Your task to perform on an android device: open a new tab in the chrome app Image 0: 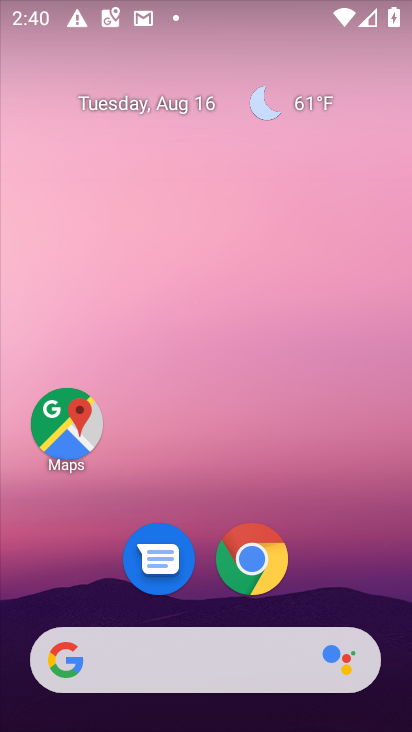
Step 0: click (250, 561)
Your task to perform on an android device: open a new tab in the chrome app Image 1: 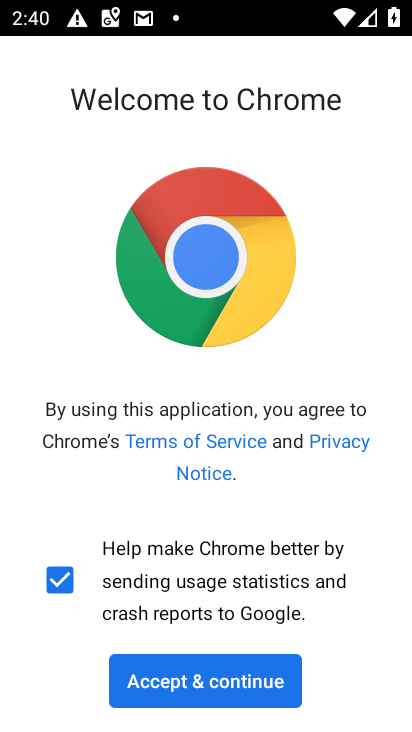
Step 1: click (196, 679)
Your task to perform on an android device: open a new tab in the chrome app Image 2: 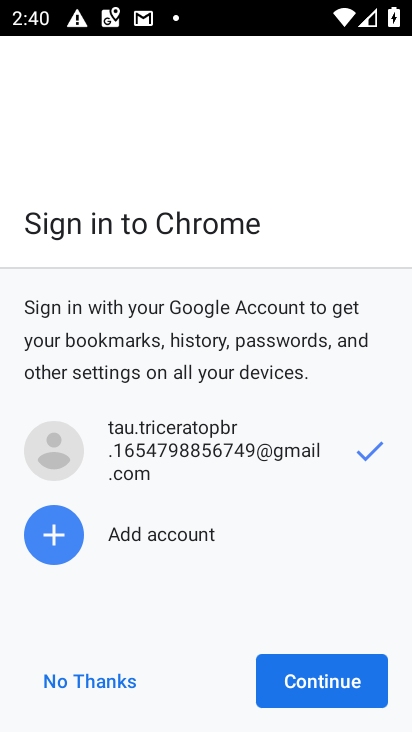
Step 2: click (326, 682)
Your task to perform on an android device: open a new tab in the chrome app Image 3: 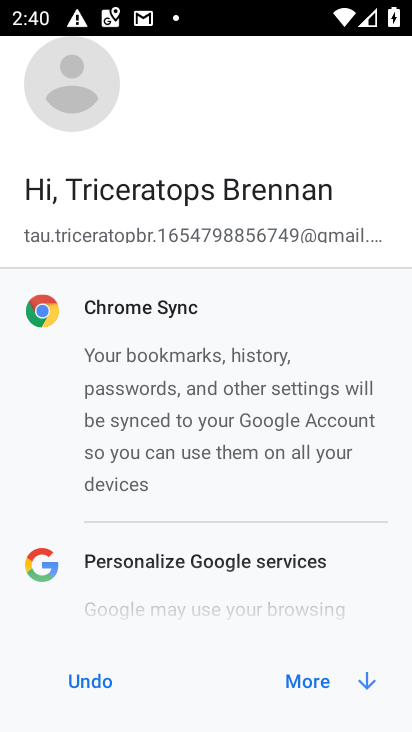
Step 3: click (326, 682)
Your task to perform on an android device: open a new tab in the chrome app Image 4: 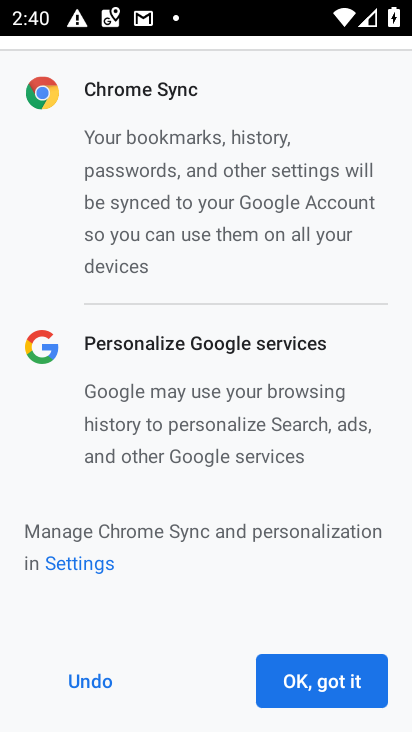
Step 4: click (326, 682)
Your task to perform on an android device: open a new tab in the chrome app Image 5: 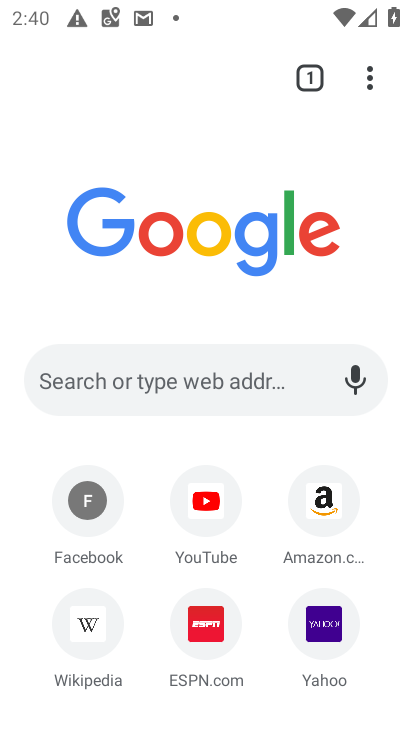
Step 5: click (366, 87)
Your task to perform on an android device: open a new tab in the chrome app Image 6: 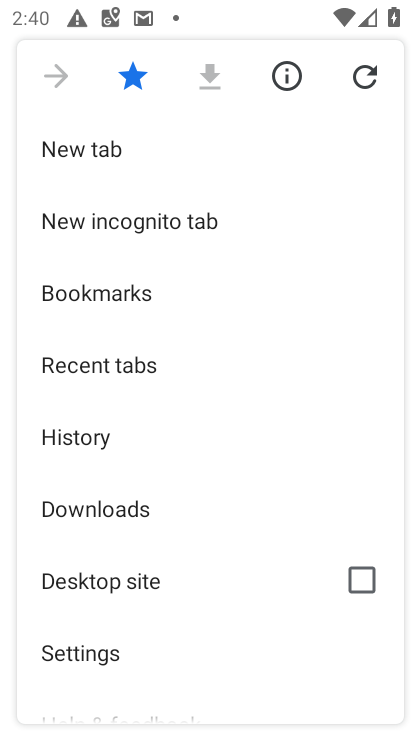
Step 6: click (89, 149)
Your task to perform on an android device: open a new tab in the chrome app Image 7: 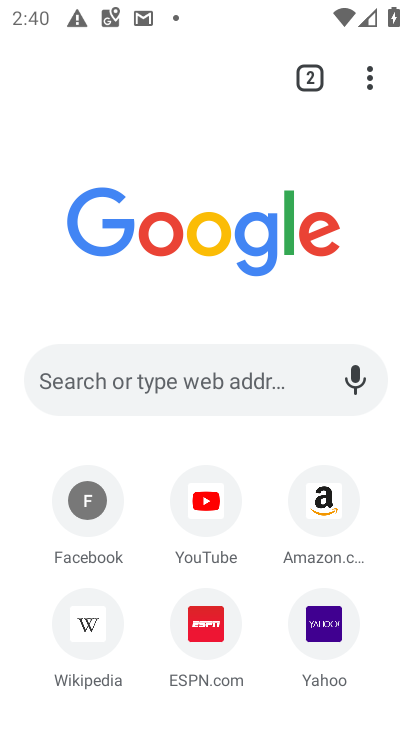
Step 7: task complete